Your task to perform on an android device: turn off data saver in the chrome app Image 0: 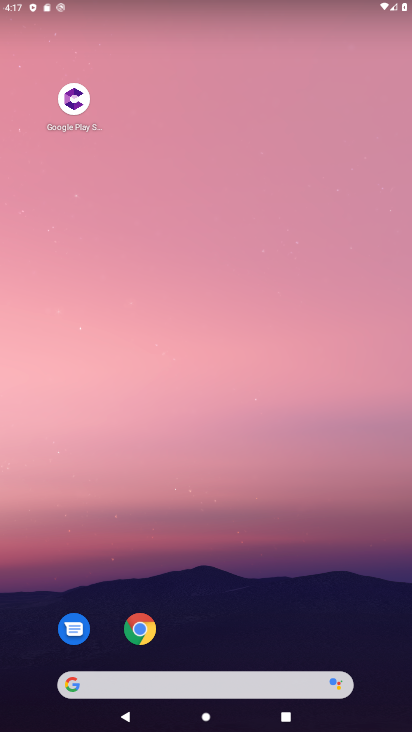
Step 0: click (143, 639)
Your task to perform on an android device: turn off data saver in the chrome app Image 1: 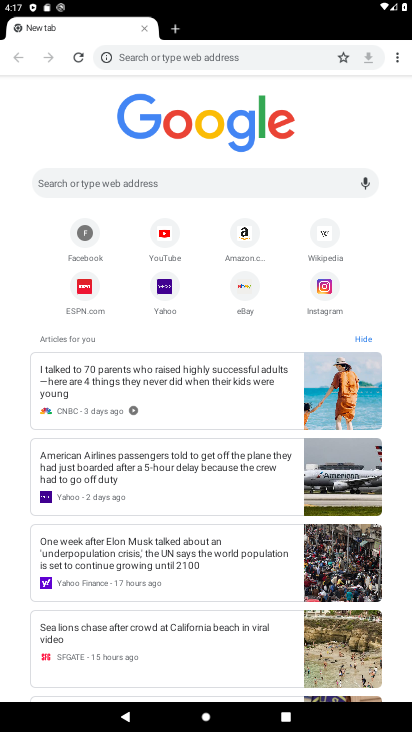
Step 1: drag from (393, 52) to (276, 270)
Your task to perform on an android device: turn off data saver in the chrome app Image 2: 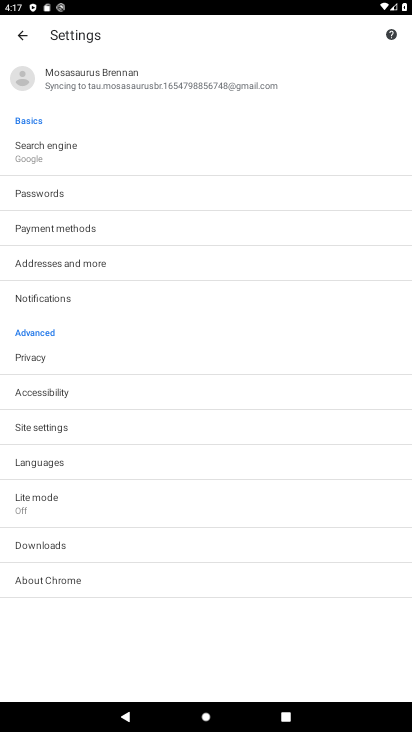
Step 2: click (16, 504)
Your task to perform on an android device: turn off data saver in the chrome app Image 3: 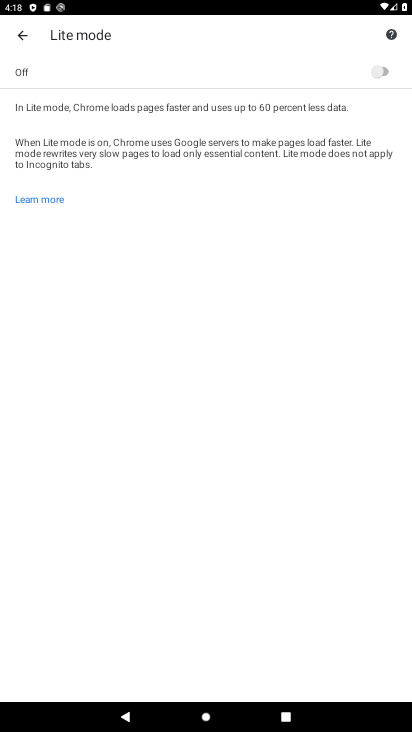
Step 3: task complete